Your task to perform on an android device: check storage Image 0: 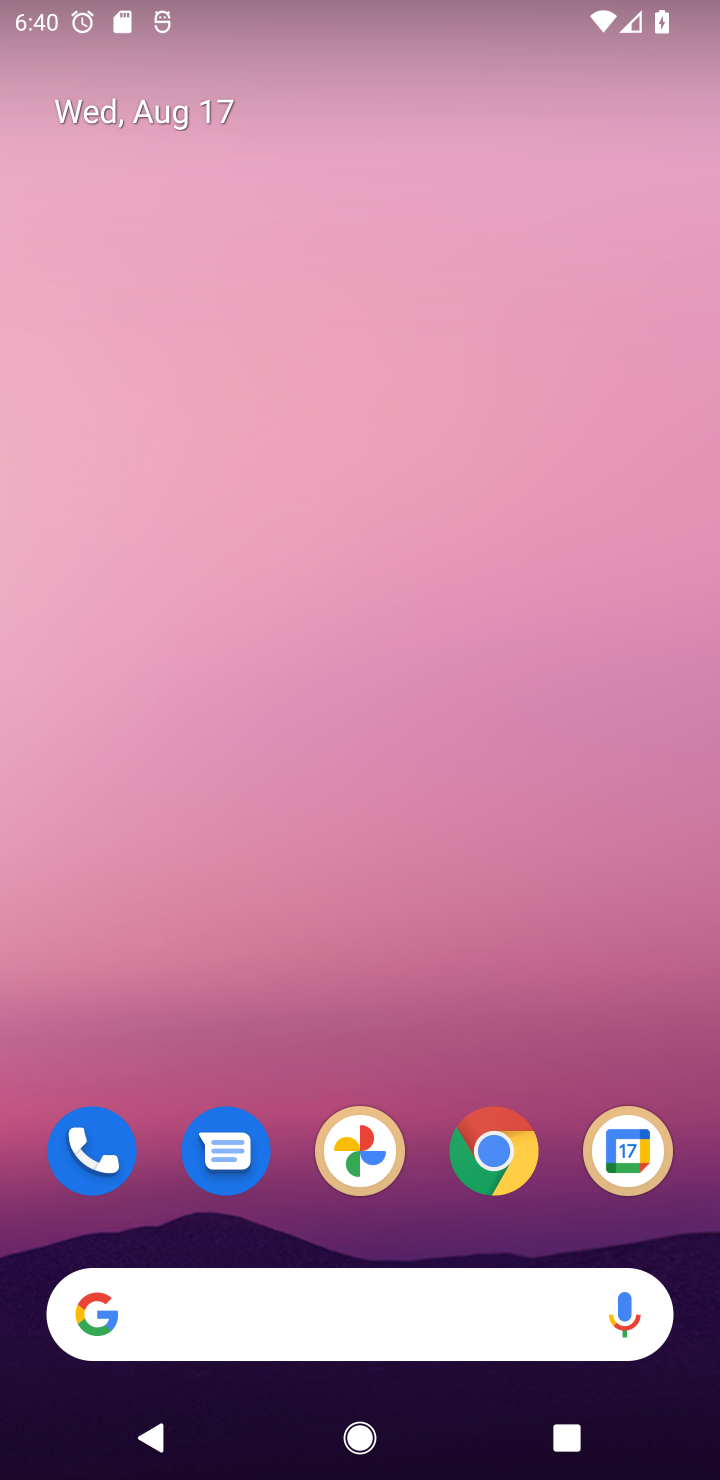
Step 0: drag from (457, 1252) to (408, 525)
Your task to perform on an android device: check storage Image 1: 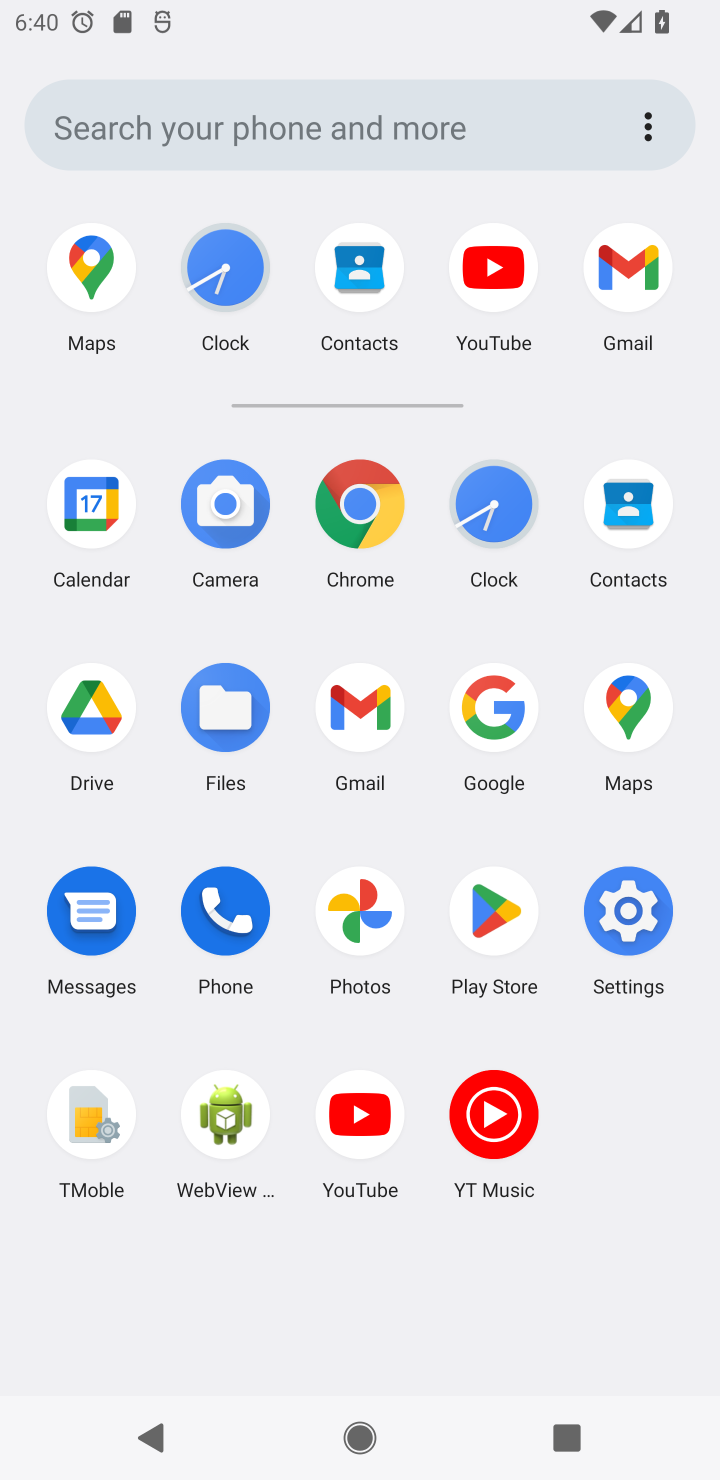
Step 1: click (604, 912)
Your task to perform on an android device: check storage Image 2: 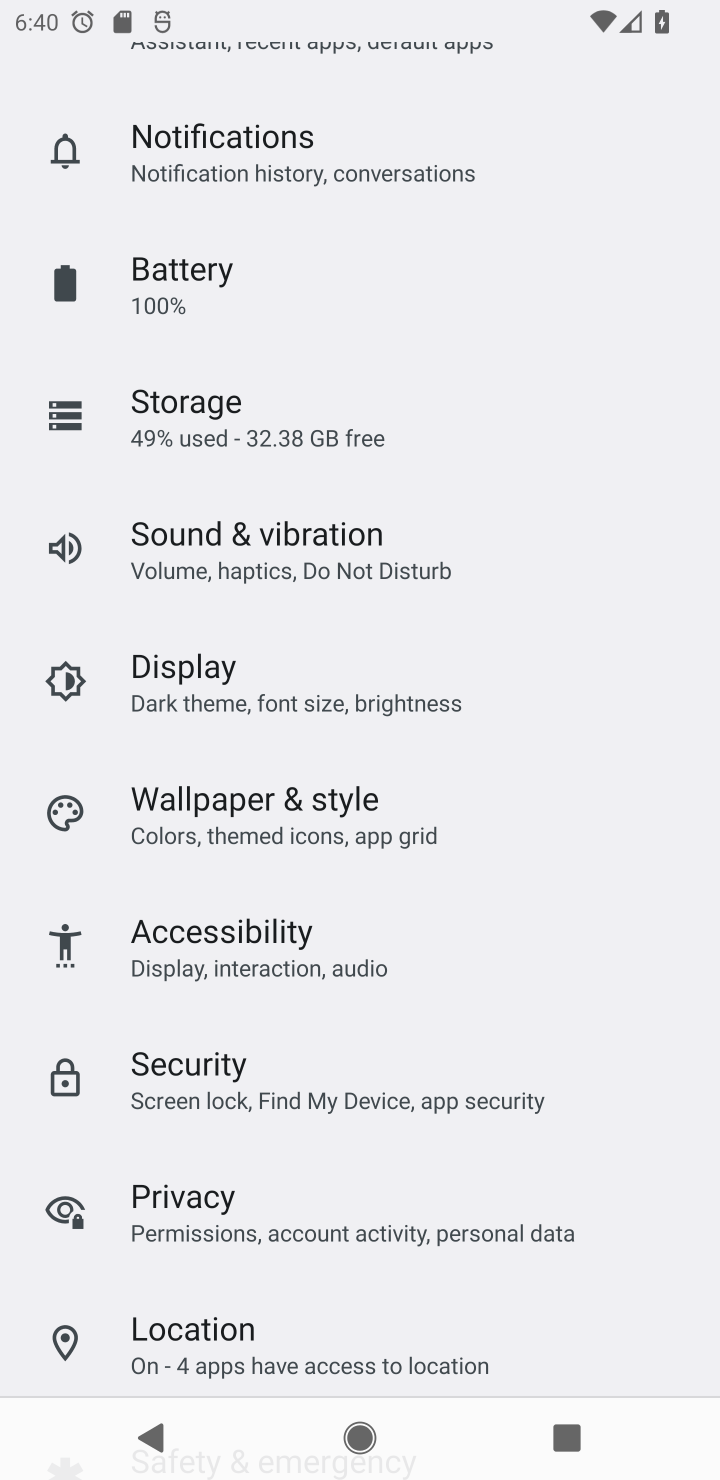
Step 2: click (286, 379)
Your task to perform on an android device: check storage Image 3: 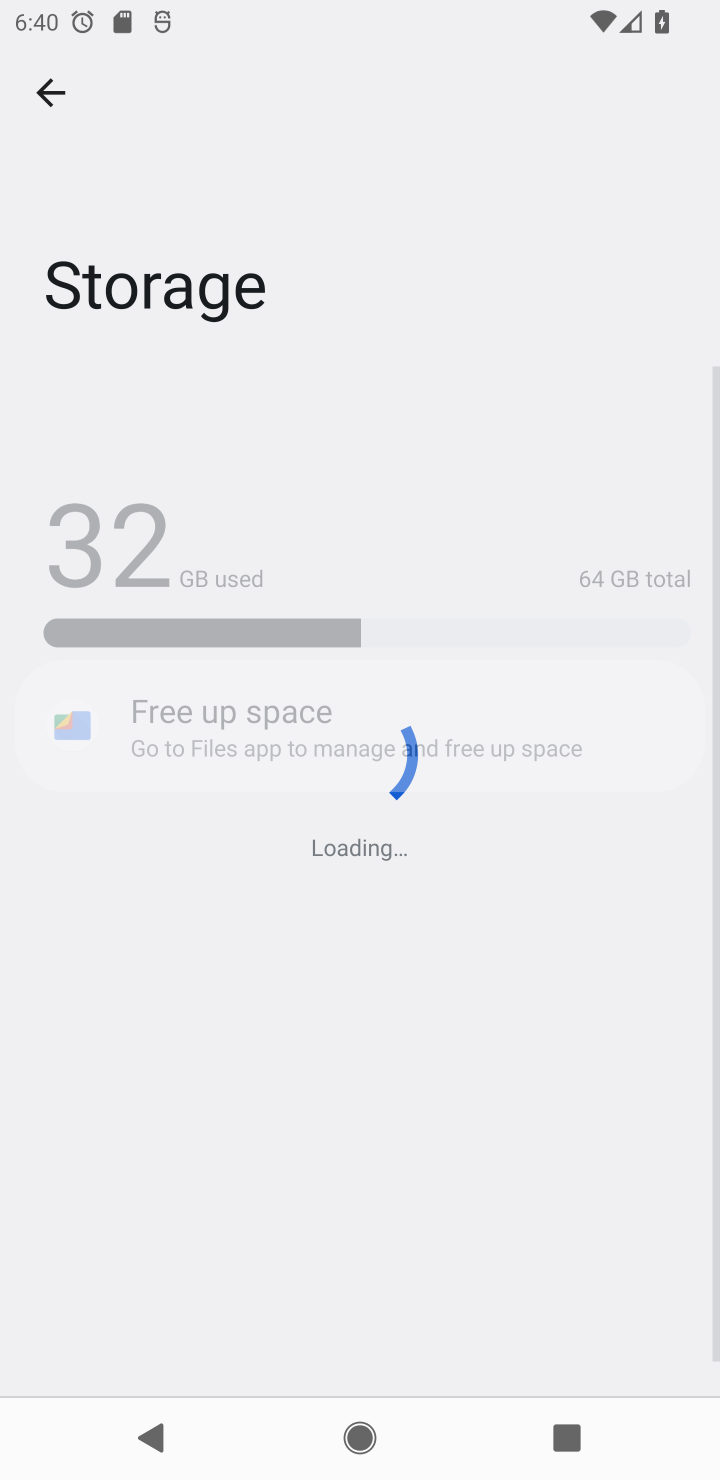
Step 3: task complete